Your task to perform on an android device: change notification settings in the gmail app Image 0: 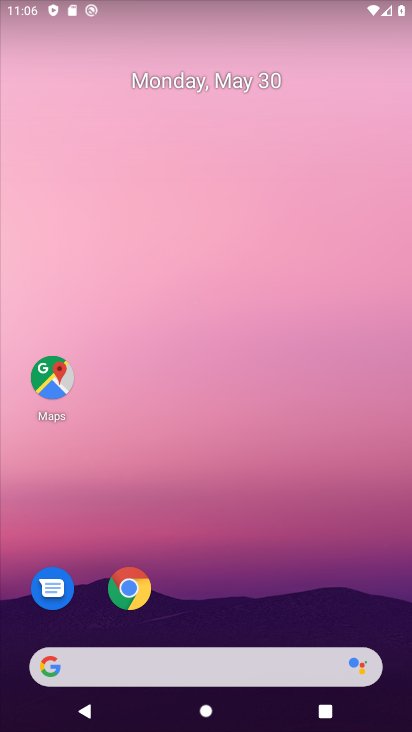
Step 0: drag from (224, 627) to (199, 15)
Your task to perform on an android device: change notification settings in the gmail app Image 1: 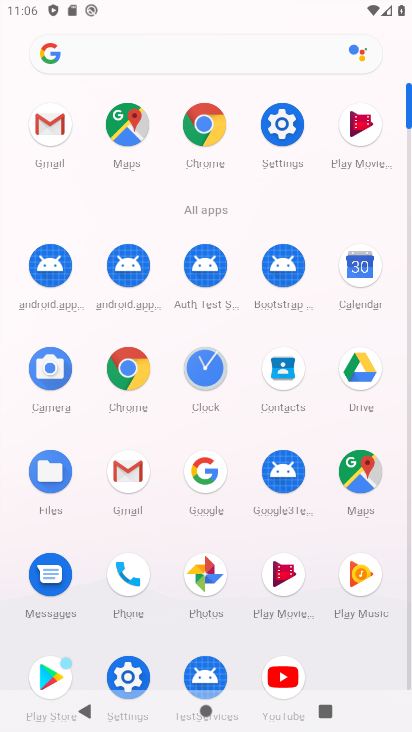
Step 1: click (48, 121)
Your task to perform on an android device: change notification settings in the gmail app Image 2: 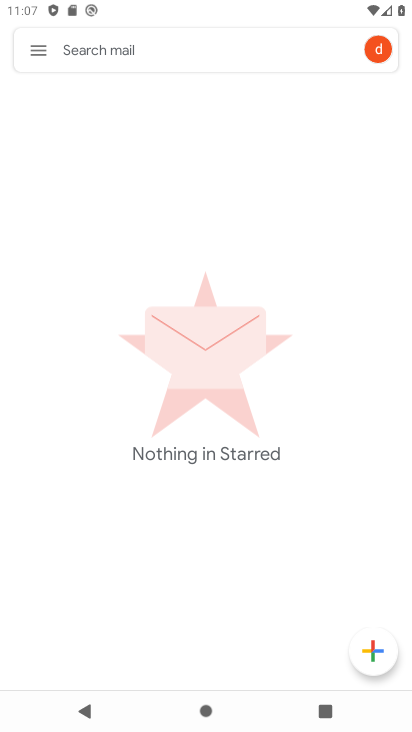
Step 2: click (45, 44)
Your task to perform on an android device: change notification settings in the gmail app Image 3: 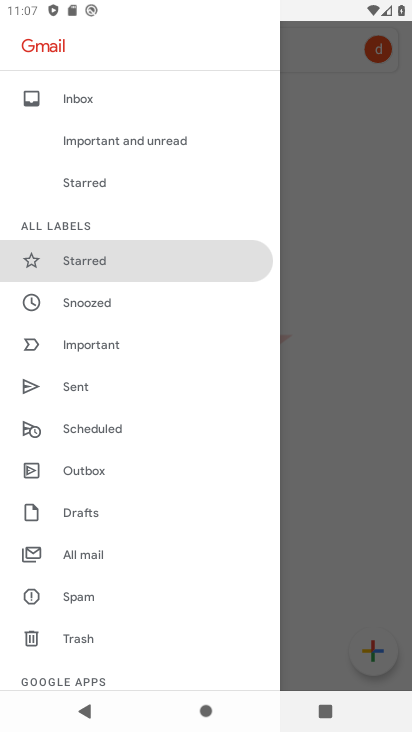
Step 3: drag from (128, 649) to (116, 191)
Your task to perform on an android device: change notification settings in the gmail app Image 4: 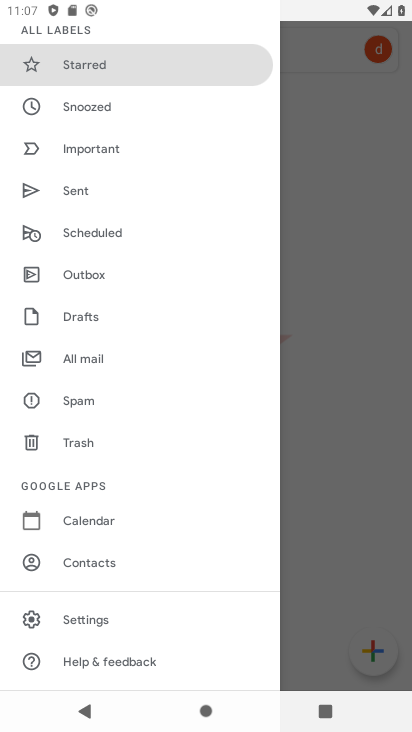
Step 4: click (120, 612)
Your task to perform on an android device: change notification settings in the gmail app Image 5: 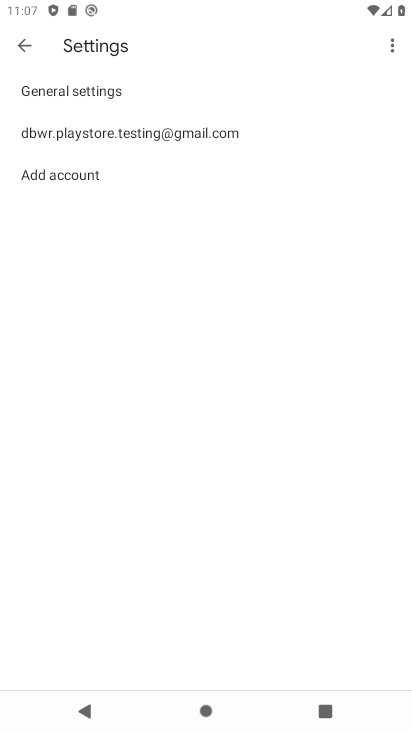
Step 5: click (130, 89)
Your task to perform on an android device: change notification settings in the gmail app Image 6: 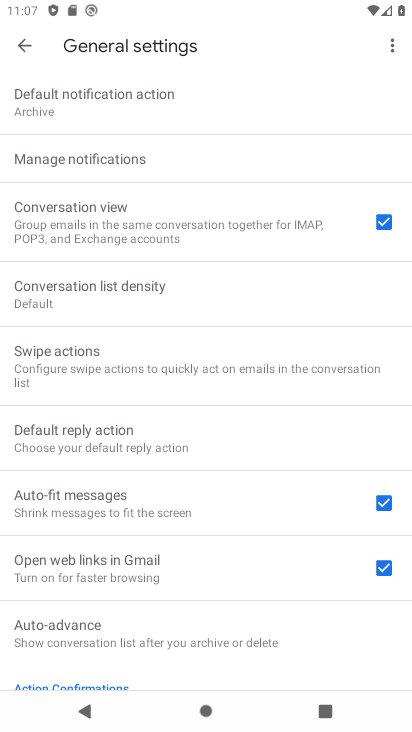
Step 6: click (145, 160)
Your task to perform on an android device: change notification settings in the gmail app Image 7: 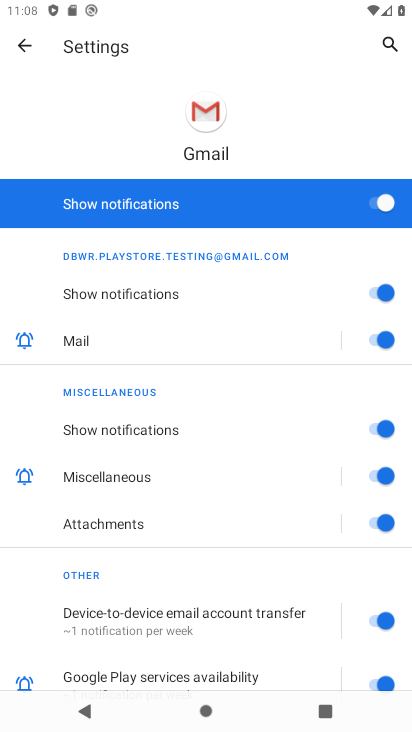
Step 7: click (374, 203)
Your task to perform on an android device: change notification settings in the gmail app Image 8: 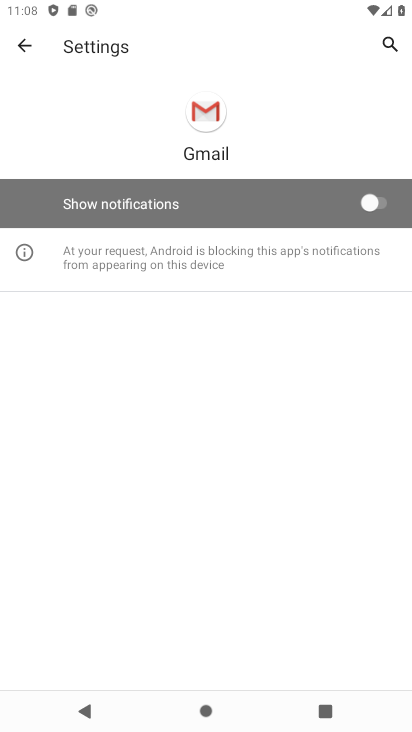
Step 8: task complete